Your task to perform on an android device: turn vacation reply on in the gmail app Image 0: 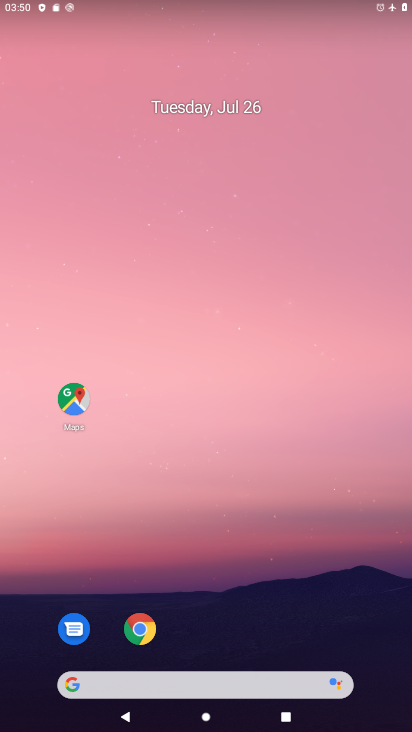
Step 0: drag from (316, 578) to (291, 106)
Your task to perform on an android device: turn vacation reply on in the gmail app Image 1: 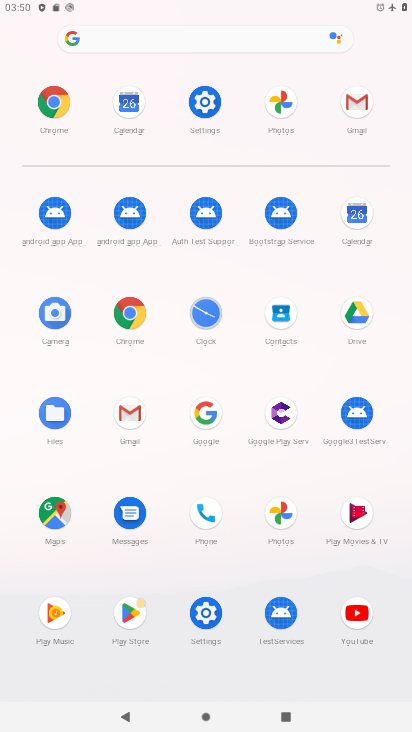
Step 1: click (130, 408)
Your task to perform on an android device: turn vacation reply on in the gmail app Image 2: 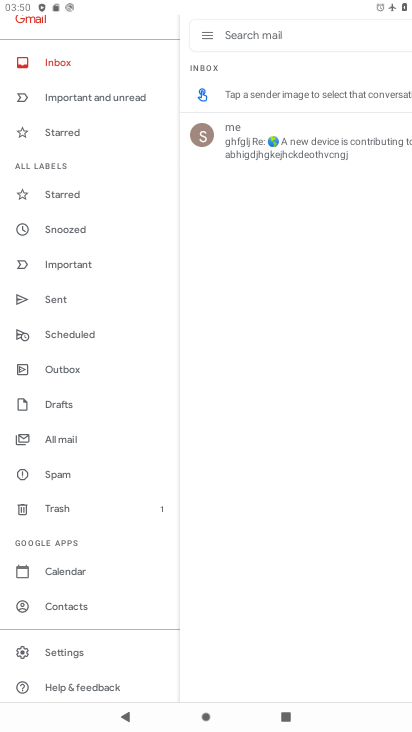
Step 2: click (63, 648)
Your task to perform on an android device: turn vacation reply on in the gmail app Image 3: 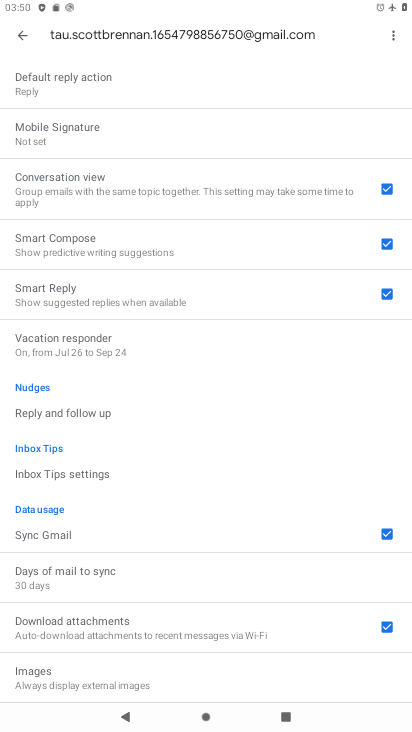
Step 3: drag from (120, 611) to (131, 307)
Your task to perform on an android device: turn vacation reply on in the gmail app Image 4: 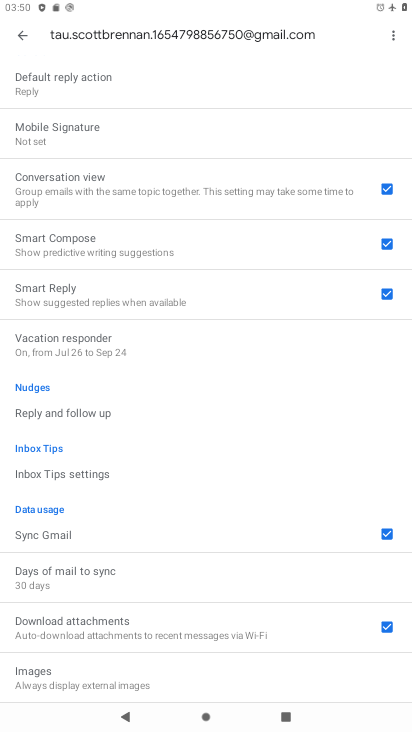
Step 4: click (63, 329)
Your task to perform on an android device: turn vacation reply on in the gmail app Image 5: 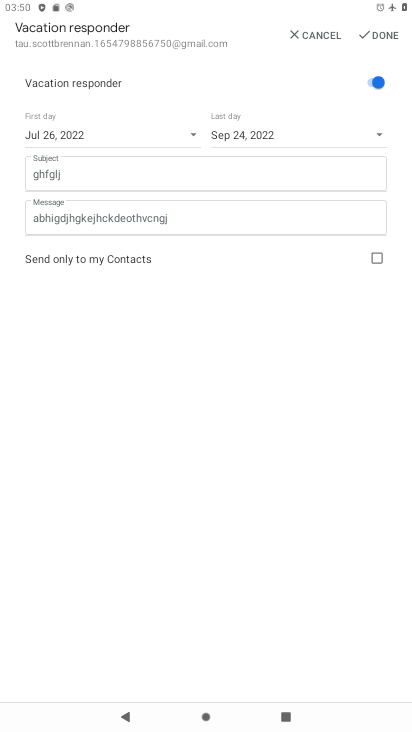
Step 5: click (378, 39)
Your task to perform on an android device: turn vacation reply on in the gmail app Image 6: 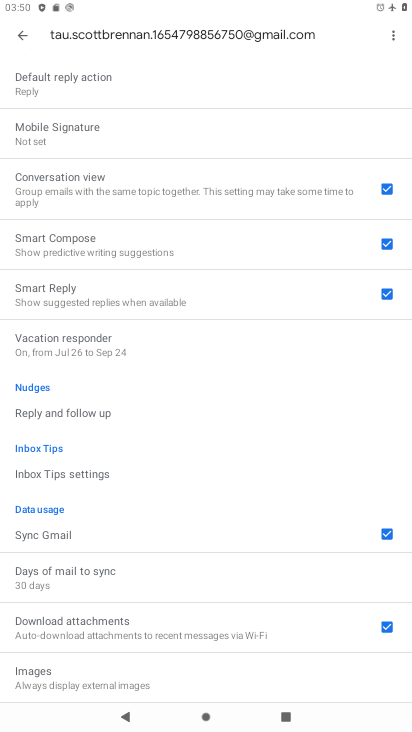
Step 6: task complete